Your task to perform on an android device: turn on the 24-hour format for clock Image 0: 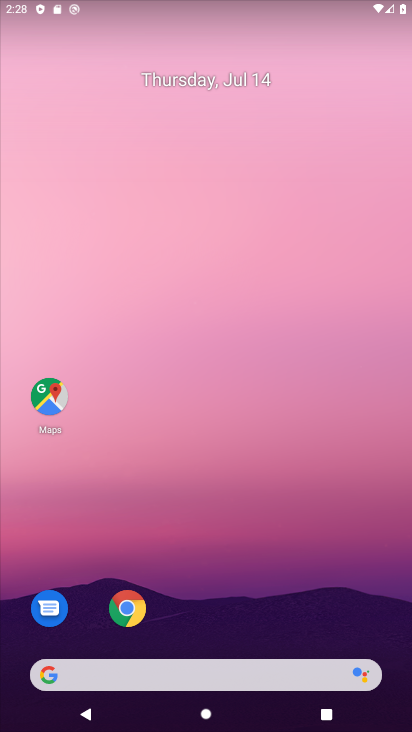
Step 0: drag from (389, 123) to (393, 390)
Your task to perform on an android device: turn on the 24-hour format for clock Image 1: 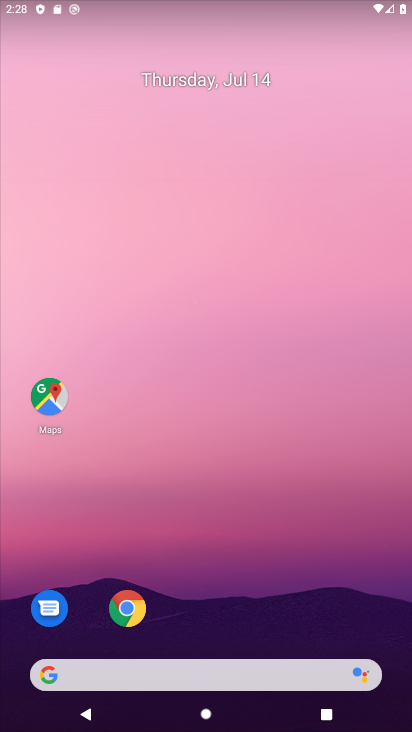
Step 1: drag from (312, 297) to (386, 59)
Your task to perform on an android device: turn on the 24-hour format for clock Image 2: 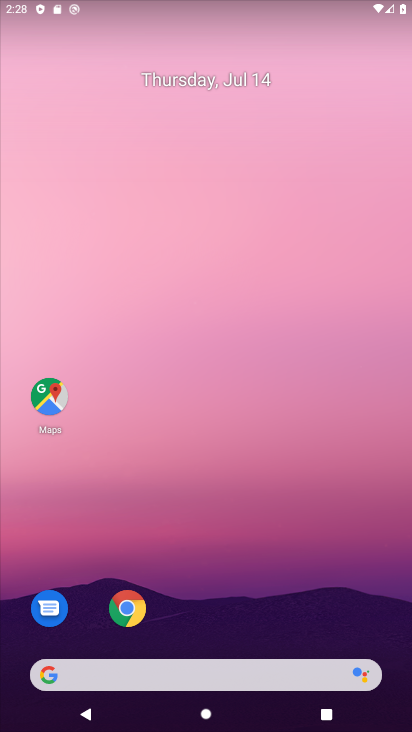
Step 2: drag from (254, 369) to (304, 183)
Your task to perform on an android device: turn on the 24-hour format for clock Image 3: 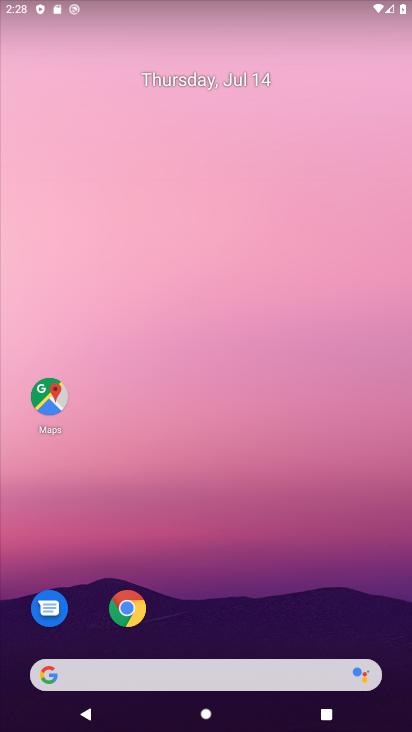
Step 3: drag from (192, 637) to (269, 344)
Your task to perform on an android device: turn on the 24-hour format for clock Image 4: 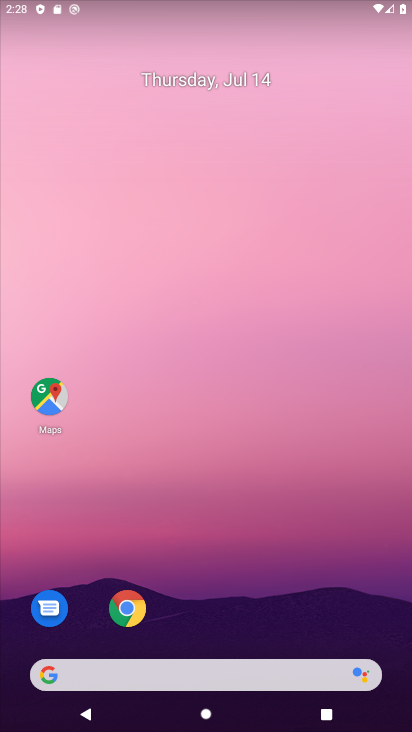
Step 4: drag from (185, 606) to (335, 0)
Your task to perform on an android device: turn on the 24-hour format for clock Image 5: 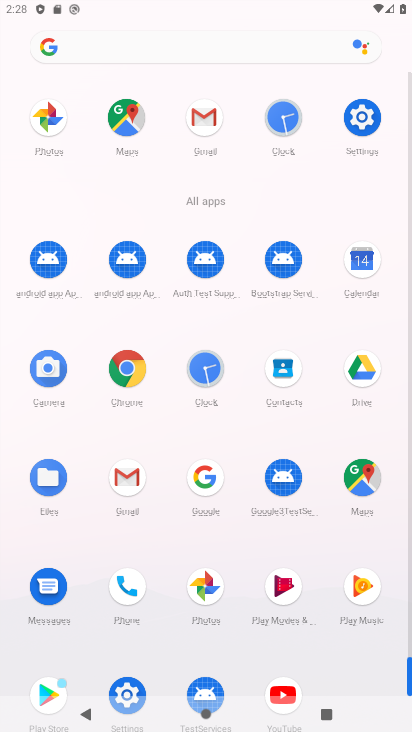
Step 5: click (207, 361)
Your task to perform on an android device: turn on the 24-hour format for clock Image 6: 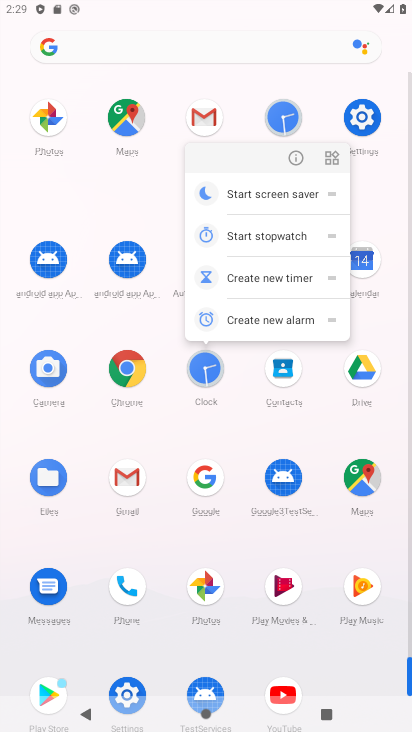
Step 6: click (293, 145)
Your task to perform on an android device: turn on the 24-hour format for clock Image 7: 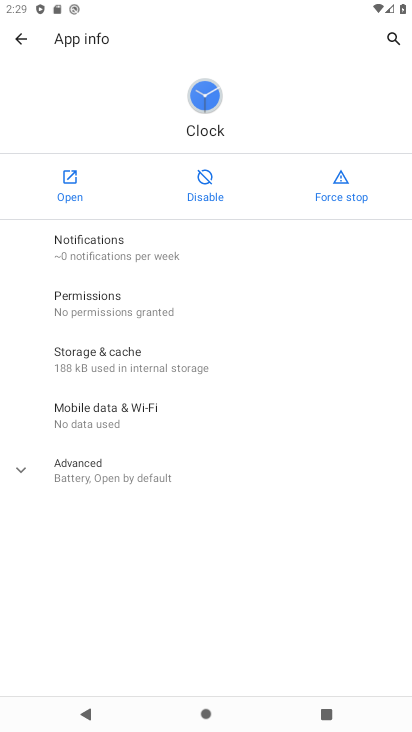
Step 7: click (75, 173)
Your task to perform on an android device: turn on the 24-hour format for clock Image 8: 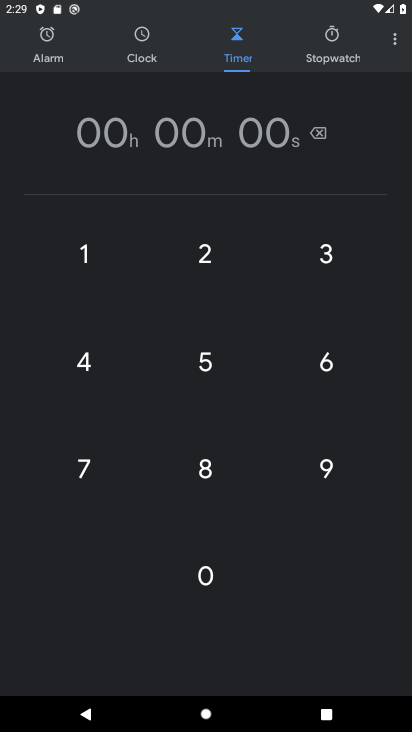
Step 8: click (388, 38)
Your task to perform on an android device: turn on the 24-hour format for clock Image 9: 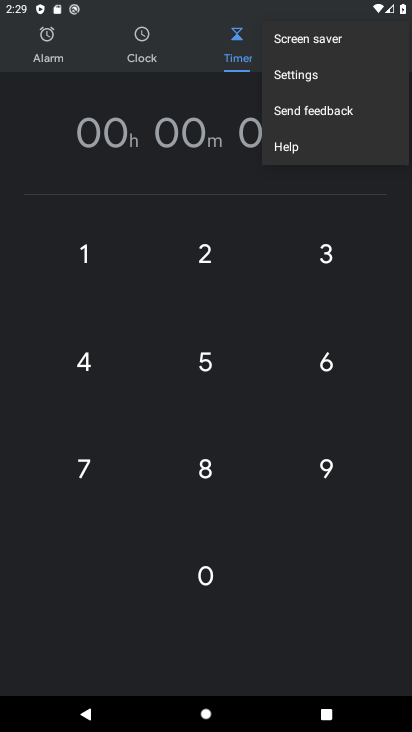
Step 9: click (308, 84)
Your task to perform on an android device: turn on the 24-hour format for clock Image 10: 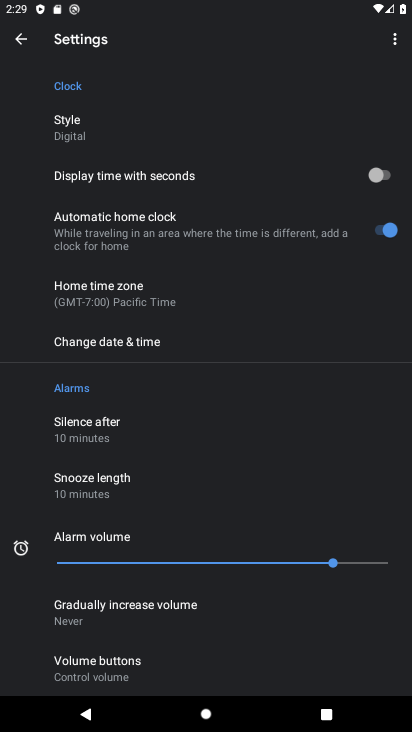
Step 10: click (129, 350)
Your task to perform on an android device: turn on the 24-hour format for clock Image 11: 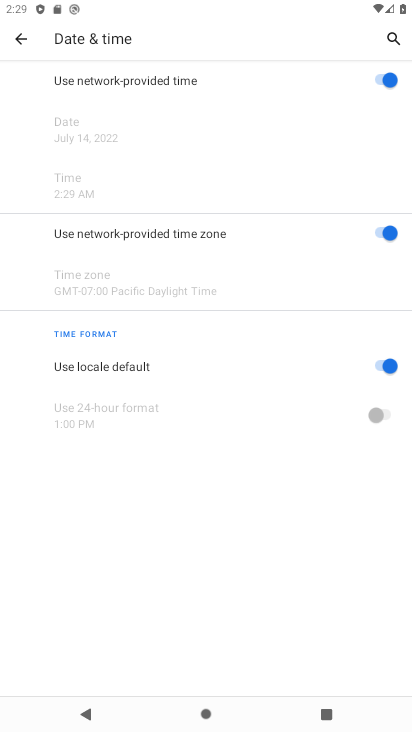
Step 11: click (383, 369)
Your task to perform on an android device: turn on the 24-hour format for clock Image 12: 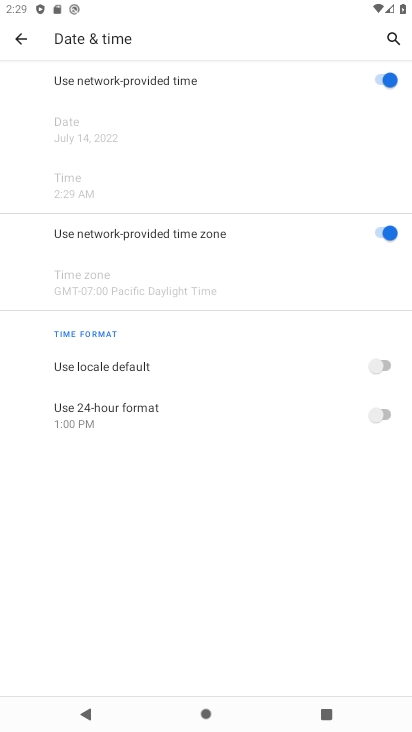
Step 12: click (362, 403)
Your task to perform on an android device: turn on the 24-hour format for clock Image 13: 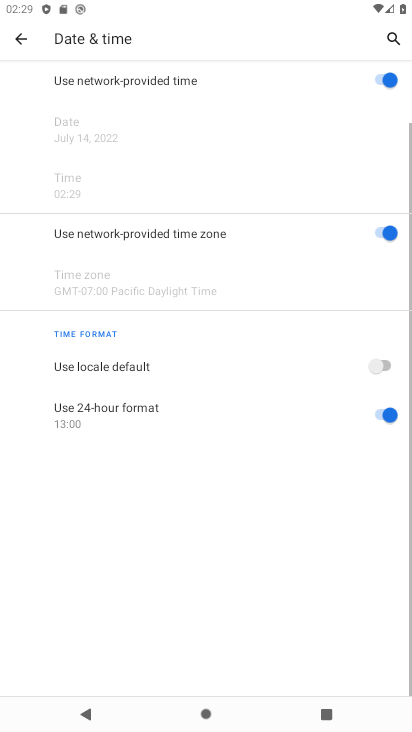
Step 13: task complete